Your task to perform on an android device: Open Google Image 0: 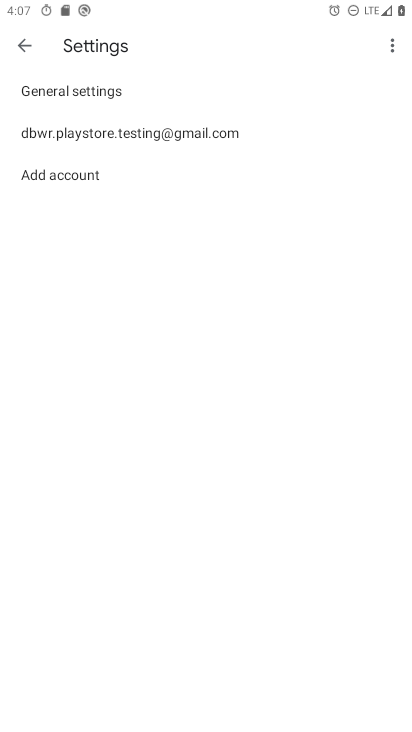
Step 0: press home button
Your task to perform on an android device: Open Google Image 1: 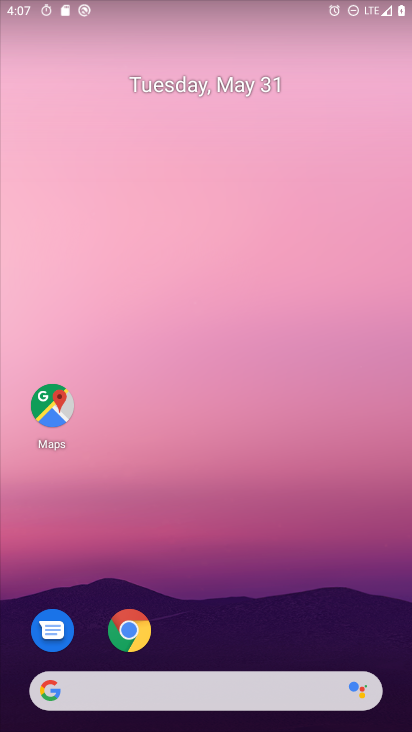
Step 1: drag from (306, 682) to (254, 17)
Your task to perform on an android device: Open Google Image 2: 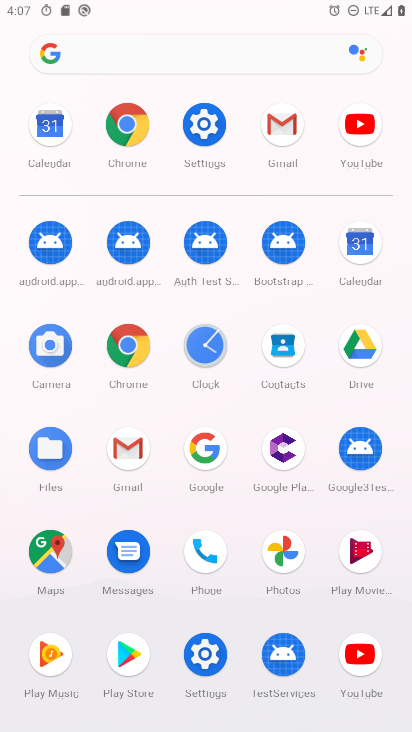
Step 2: click (140, 355)
Your task to perform on an android device: Open Google Image 3: 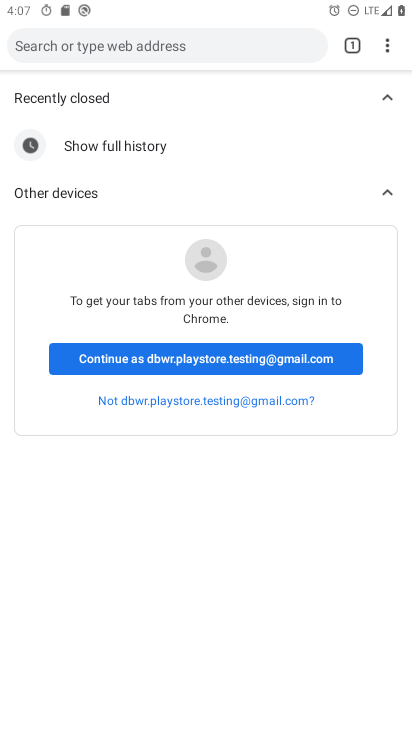
Step 3: click (182, 34)
Your task to perform on an android device: Open Google Image 4: 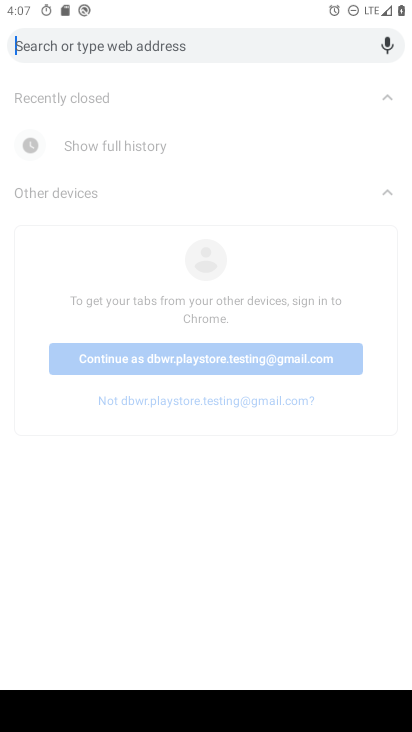
Step 4: task complete